Your task to perform on an android device: turn off smart reply in the gmail app Image 0: 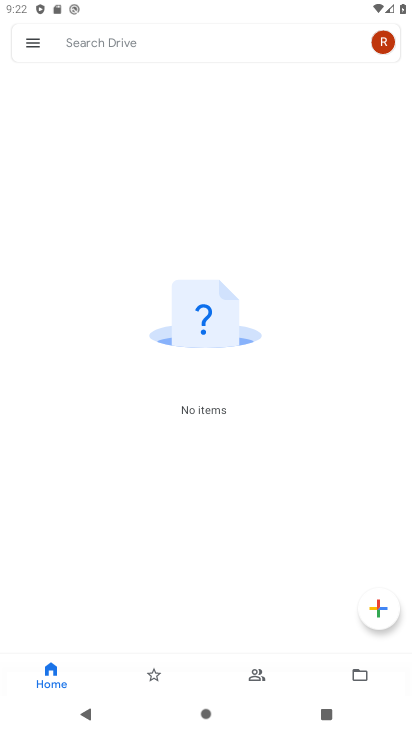
Step 0: press home button
Your task to perform on an android device: turn off smart reply in the gmail app Image 1: 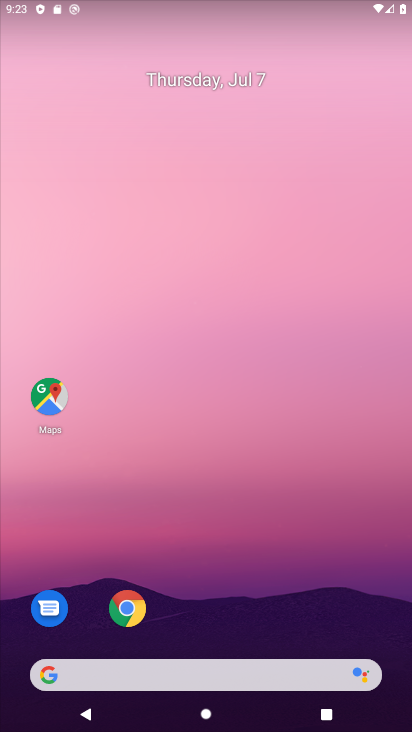
Step 1: drag from (243, 657) to (149, 112)
Your task to perform on an android device: turn off smart reply in the gmail app Image 2: 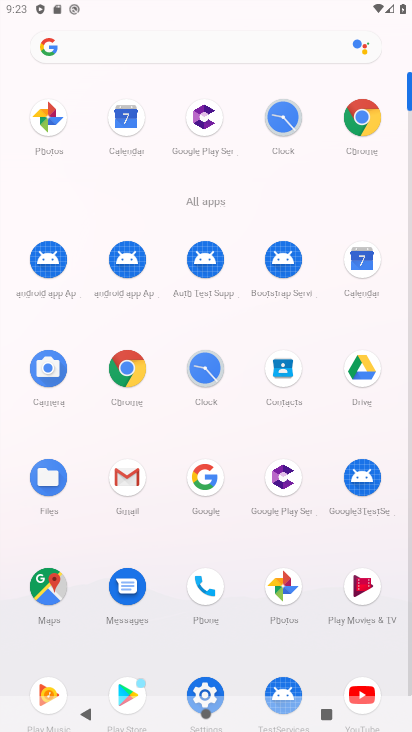
Step 2: click (130, 485)
Your task to perform on an android device: turn off smart reply in the gmail app Image 3: 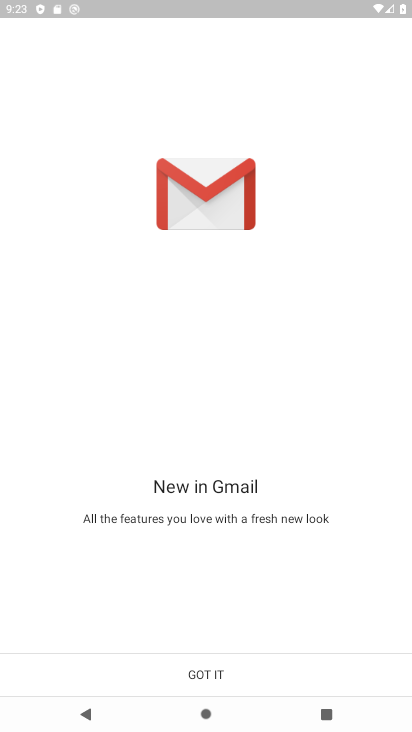
Step 3: click (208, 665)
Your task to perform on an android device: turn off smart reply in the gmail app Image 4: 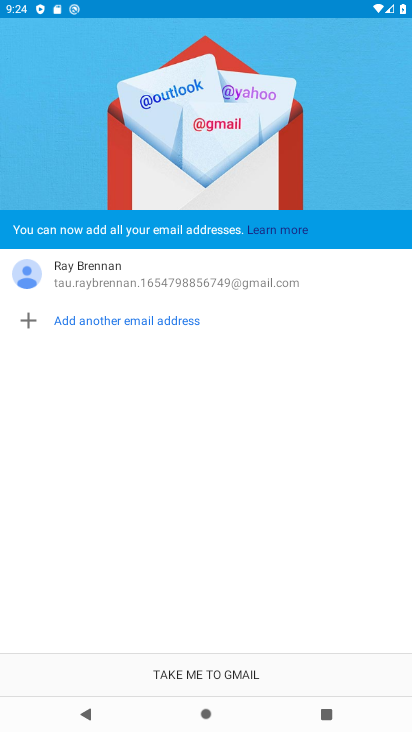
Step 4: click (259, 677)
Your task to perform on an android device: turn off smart reply in the gmail app Image 5: 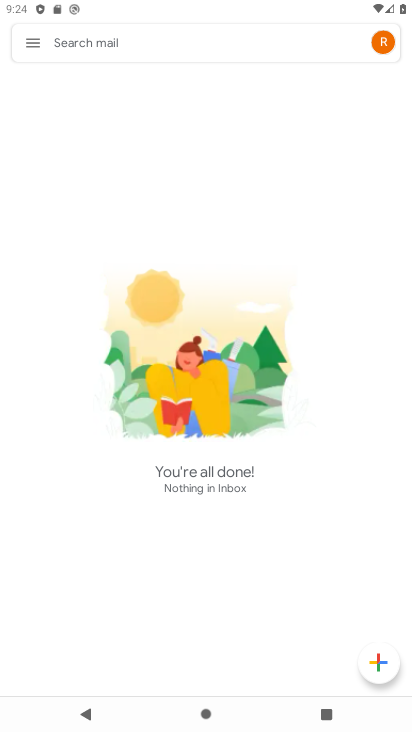
Step 5: click (22, 43)
Your task to perform on an android device: turn off smart reply in the gmail app Image 6: 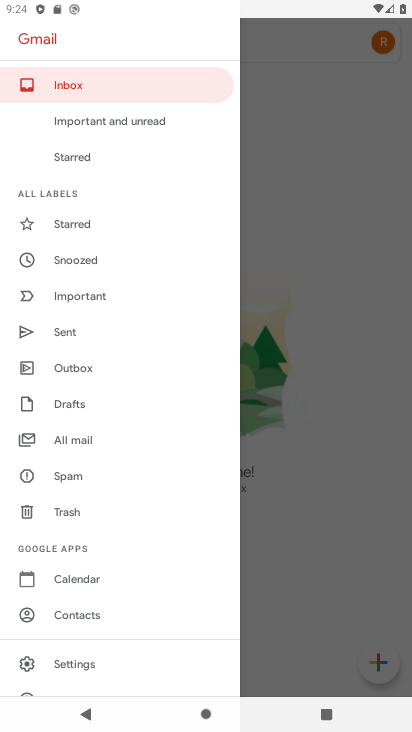
Step 6: click (82, 669)
Your task to perform on an android device: turn off smart reply in the gmail app Image 7: 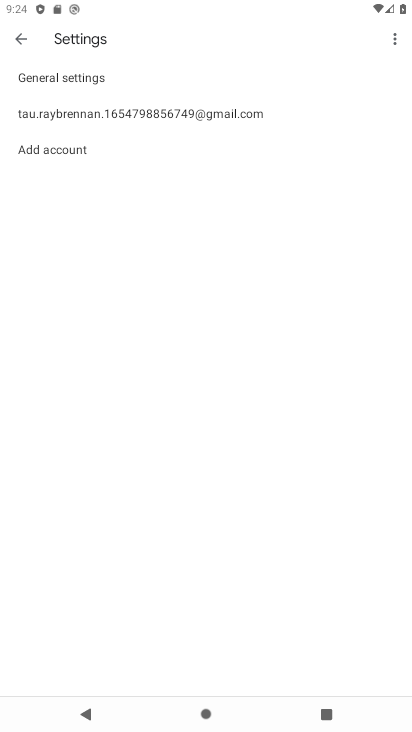
Step 7: click (46, 114)
Your task to perform on an android device: turn off smart reply in the gmail app Image 8: 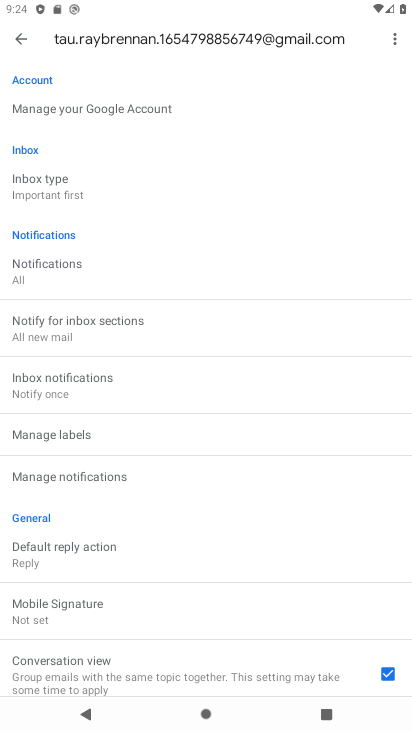
Step 8: drag from (118, 517) to (142, 47)
Your task to perform on an android device: turn off smart reply in the gmail app Image 9: 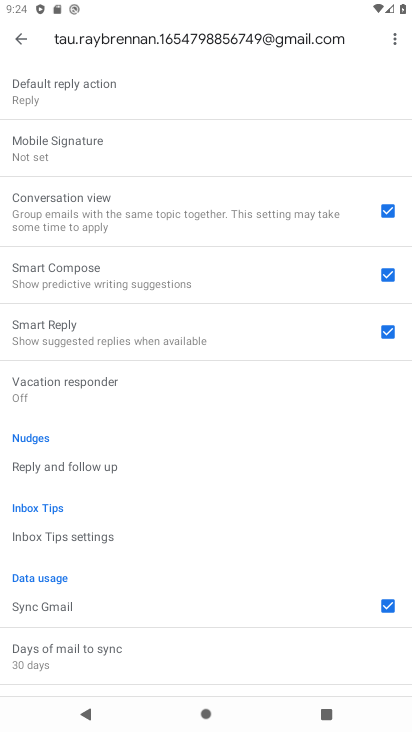
Step 9: click (392, 333)
Your task to perform on an android device: turn off smart reply in the gmail app Image 10: 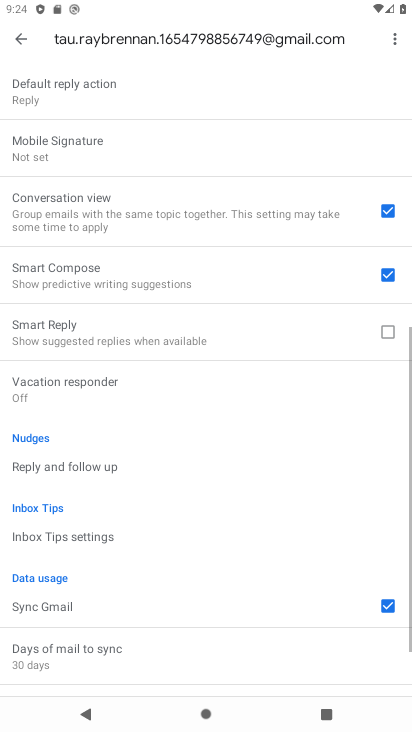
Step 10: task complete